Your task to perform on an android device: change timer sound Image 0: 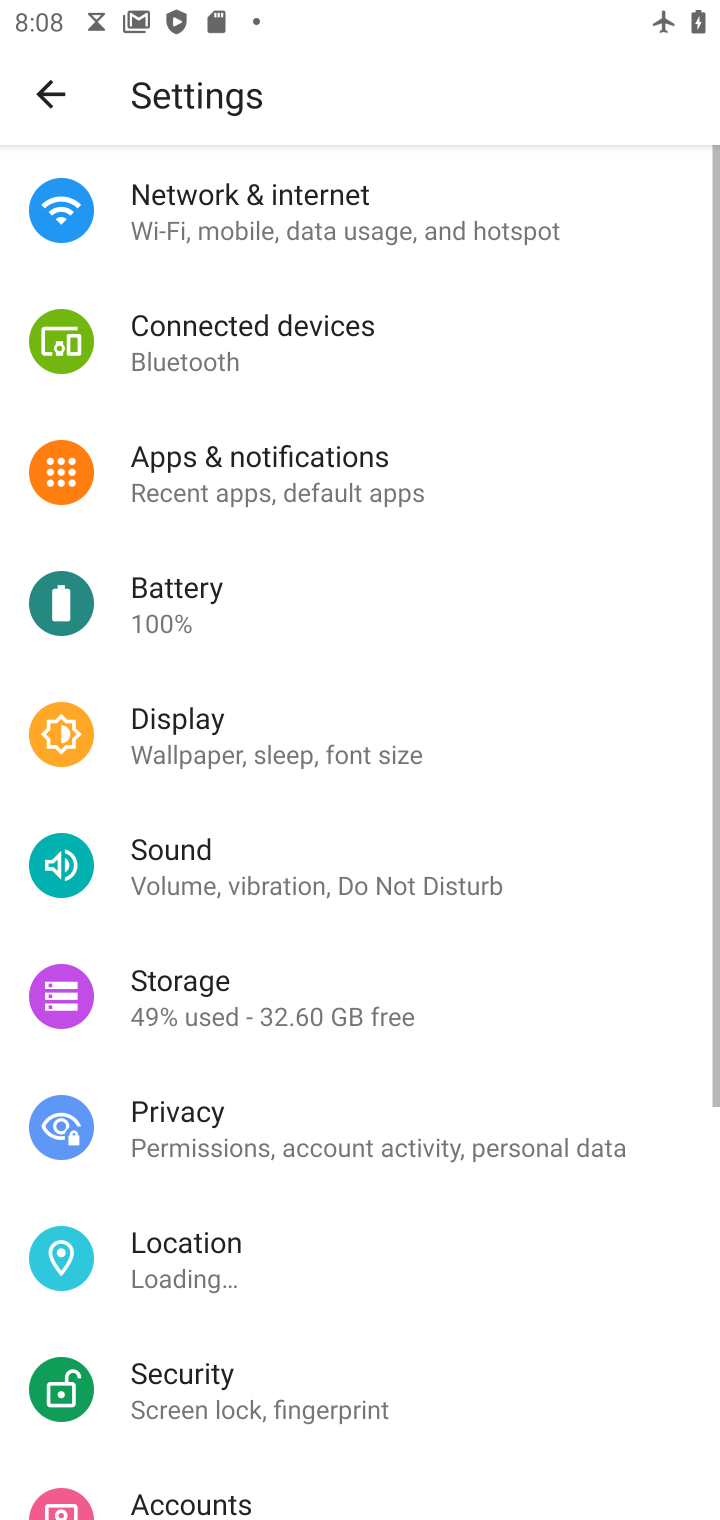
Step 0: drag from (346, 1300) to (378, 460)
Your task to perform on an android device: change timer sound Image 1: 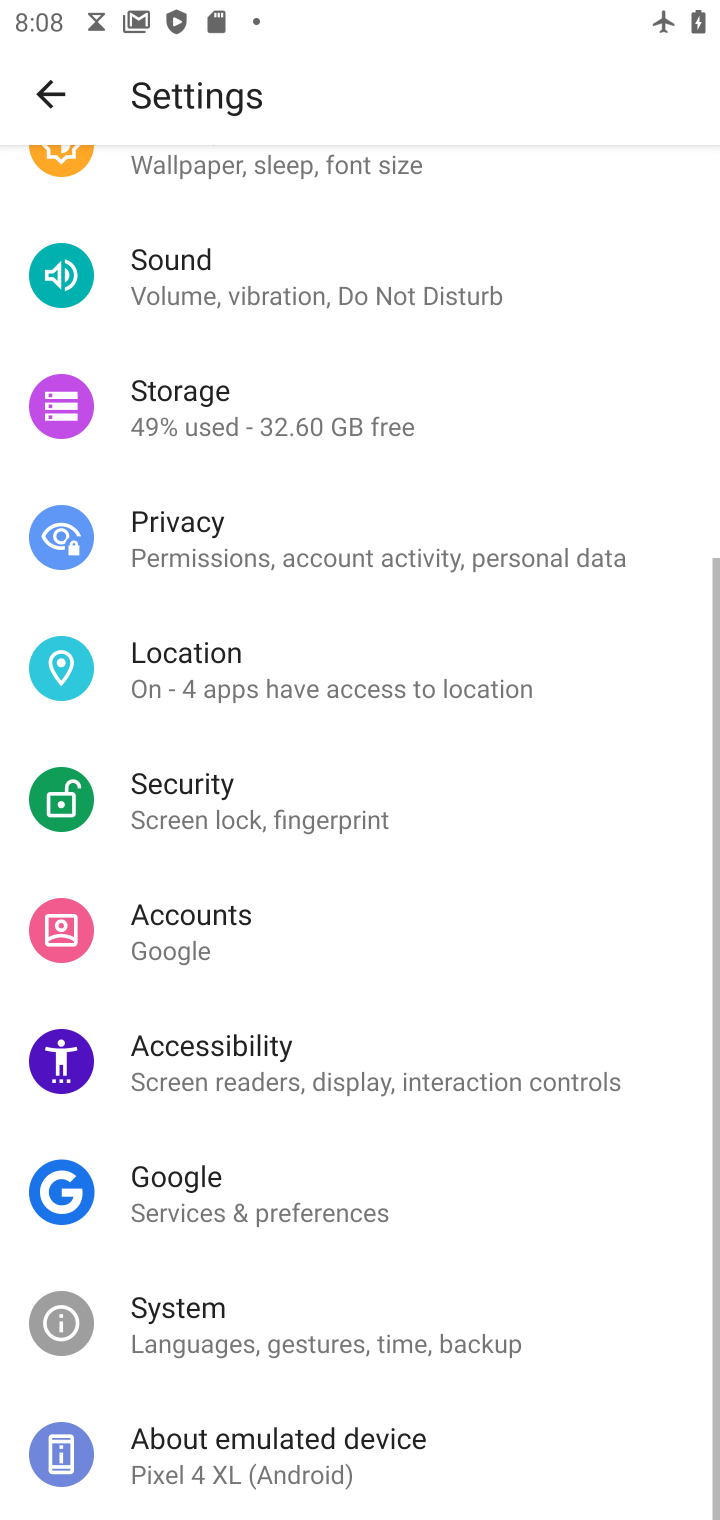
Step 1: press home button
Your task to perform on an android device: change timer sound Image 2: 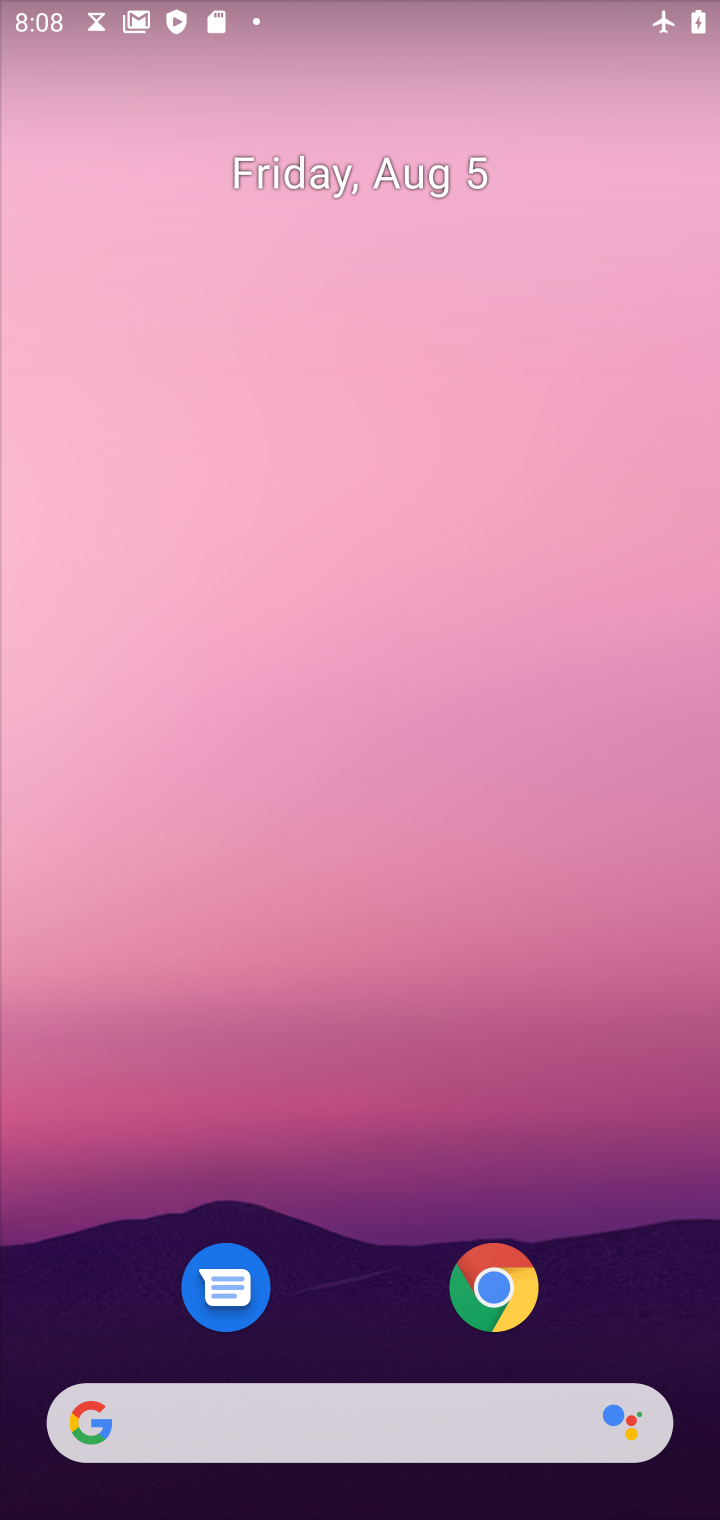
Step 2: drag from (338, 1205) to (347, 279)
Your task to perform on an android device: change timer sound Image 3: 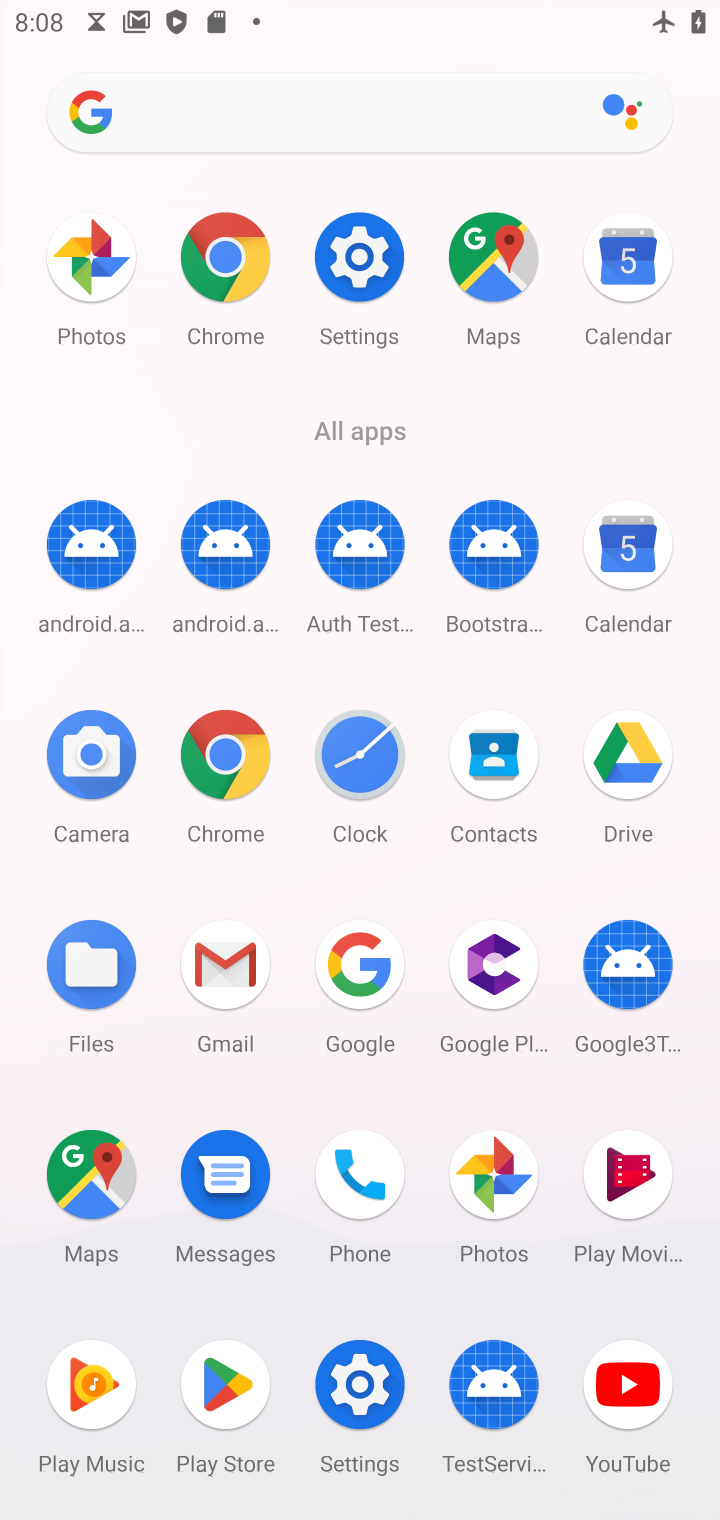
Step 3: click (363, 746)
Your task to perform on an android device: change timer sound Image 4: 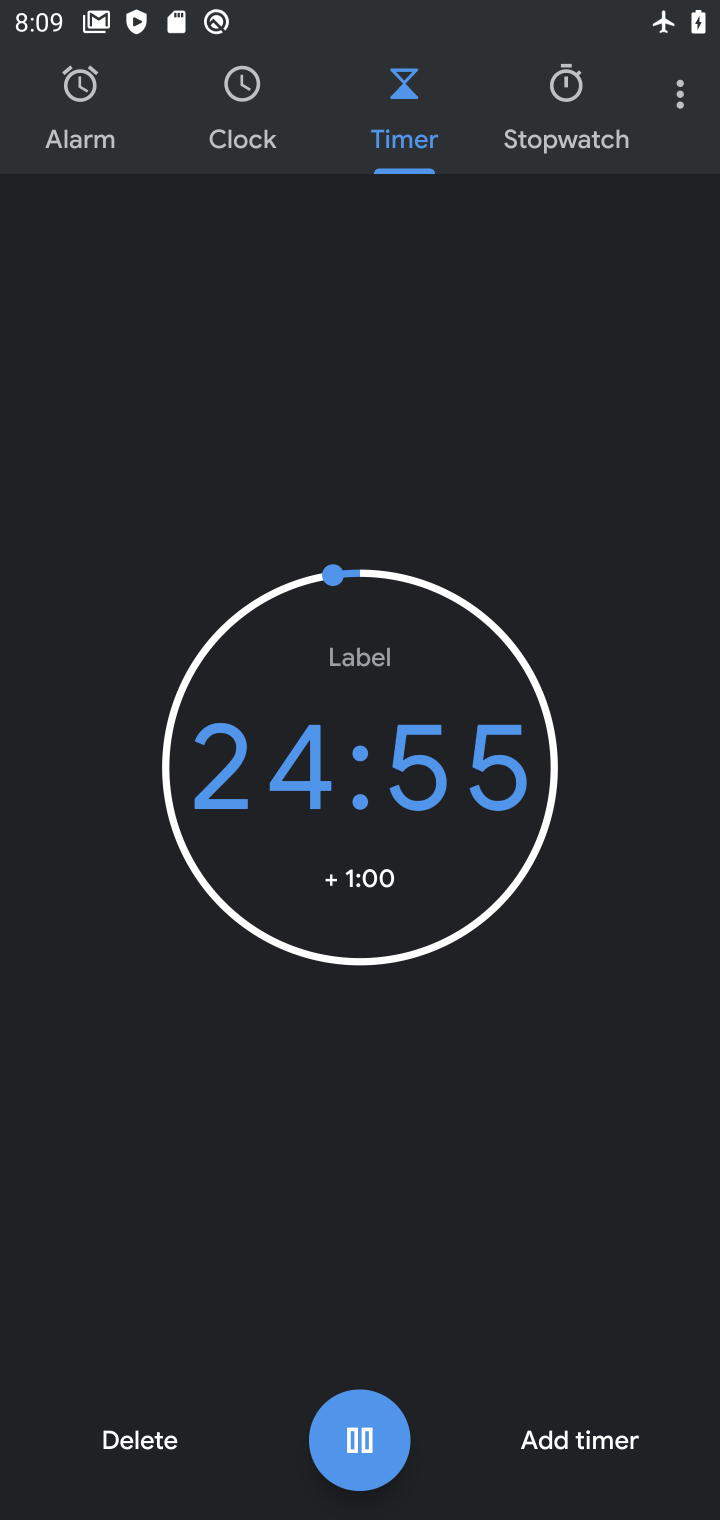
Step 4: click (684, 103)
Your task to perform on an android device: change timer sound Image 5: 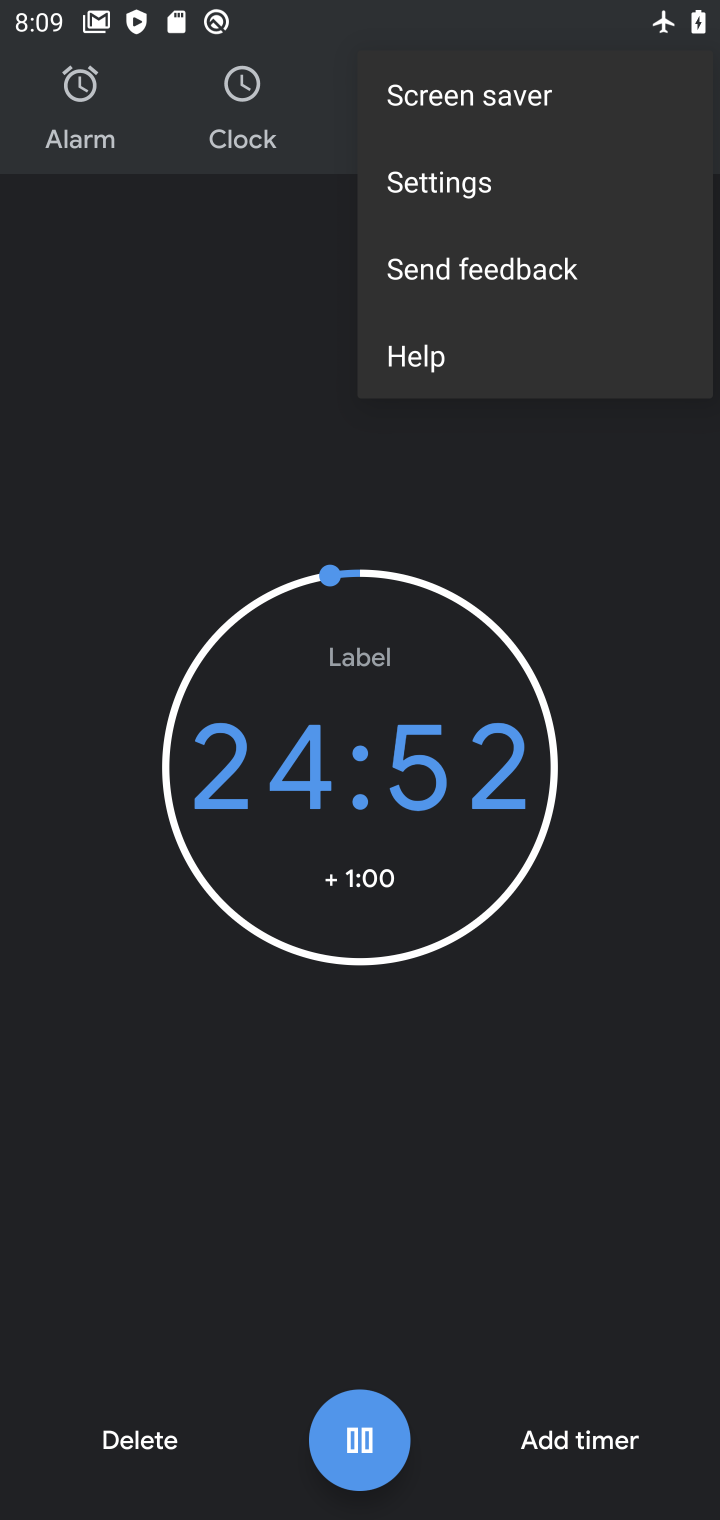
Step 5: click (430, 178)
Your task to perform on an android device: change timer sound Image 6: 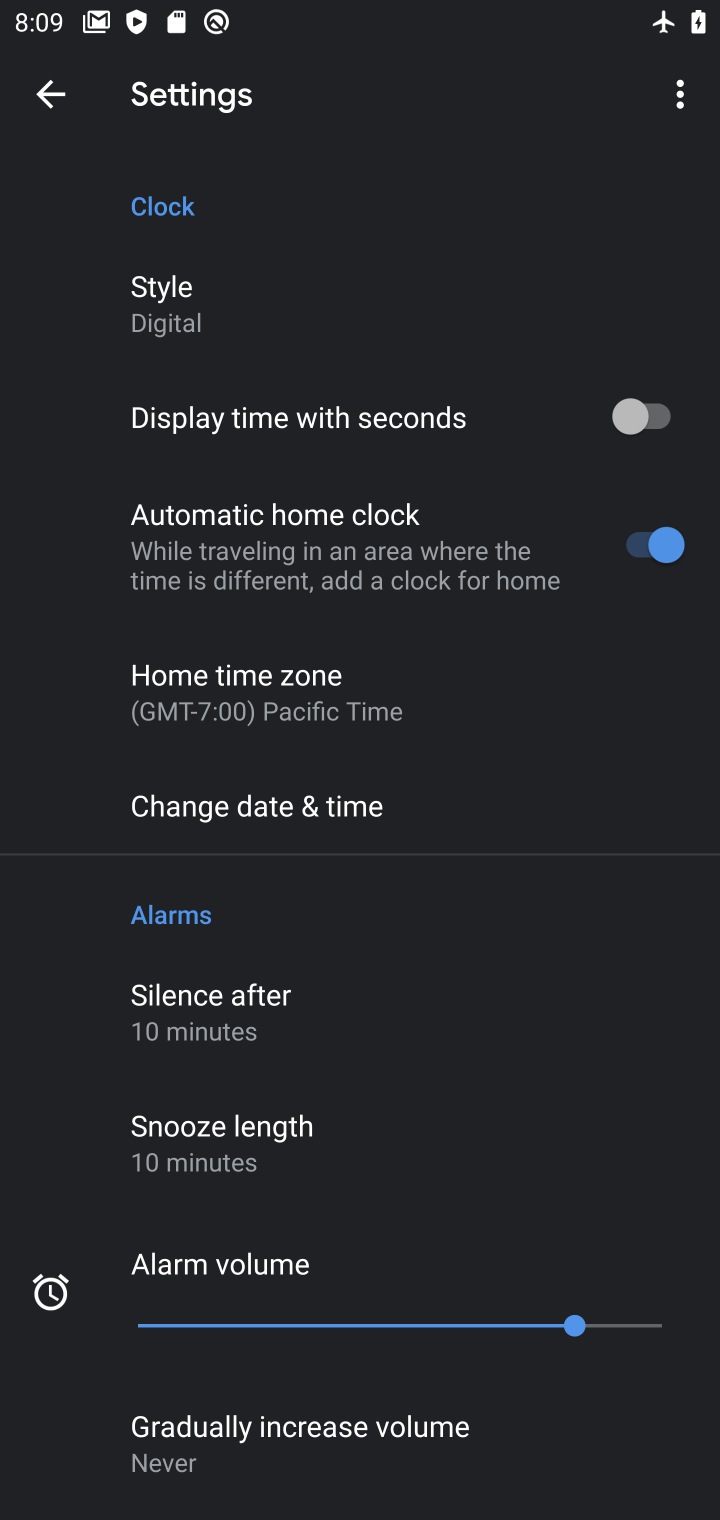
Step 6: drag from (401, 1267) to (368, 561)
Your task to perform on an android device: change timer sound Image 7: 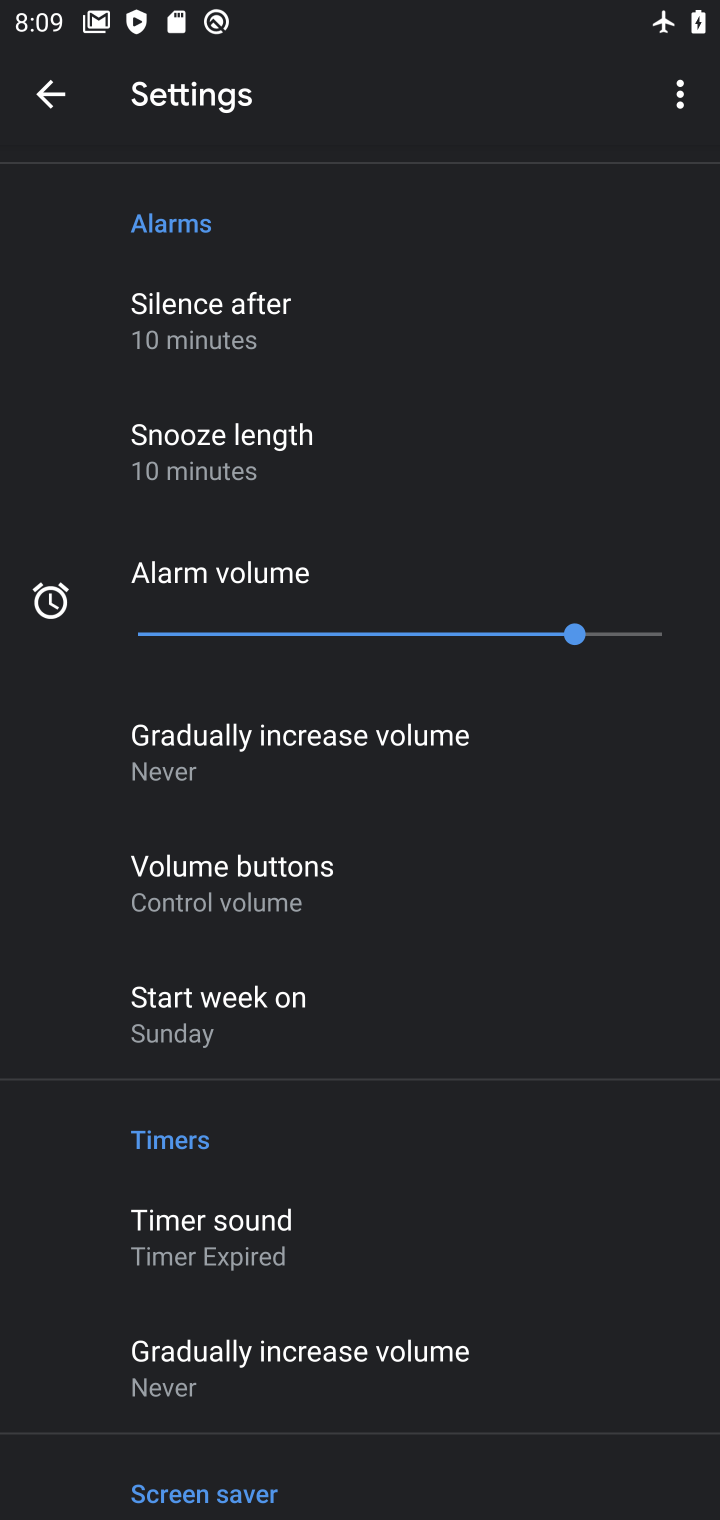
Step 7: click (245, 1255)
Your task to perform on an android device: change timer sound Image 8: 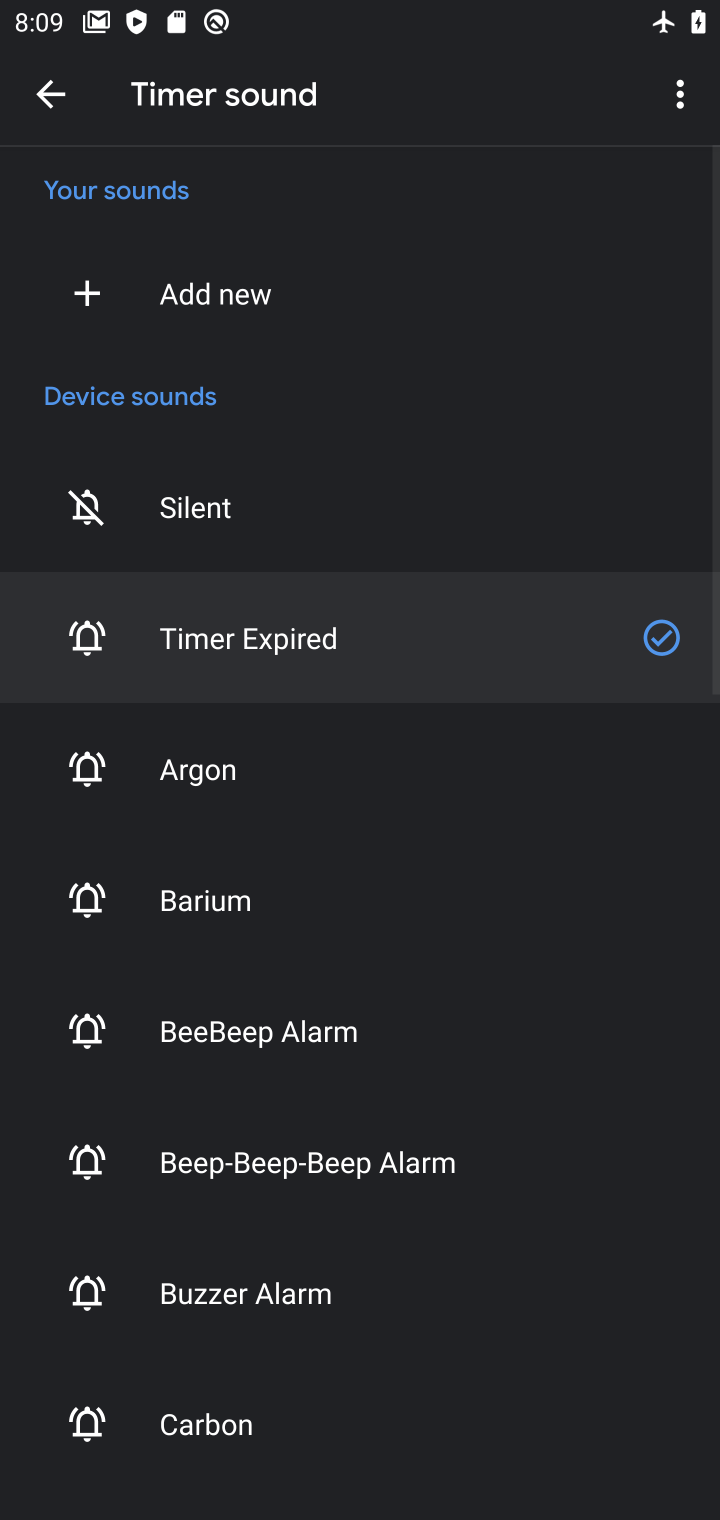
Step 8: click (249, 1160)
Your task to perform on an android device: change timer sound Image 9: 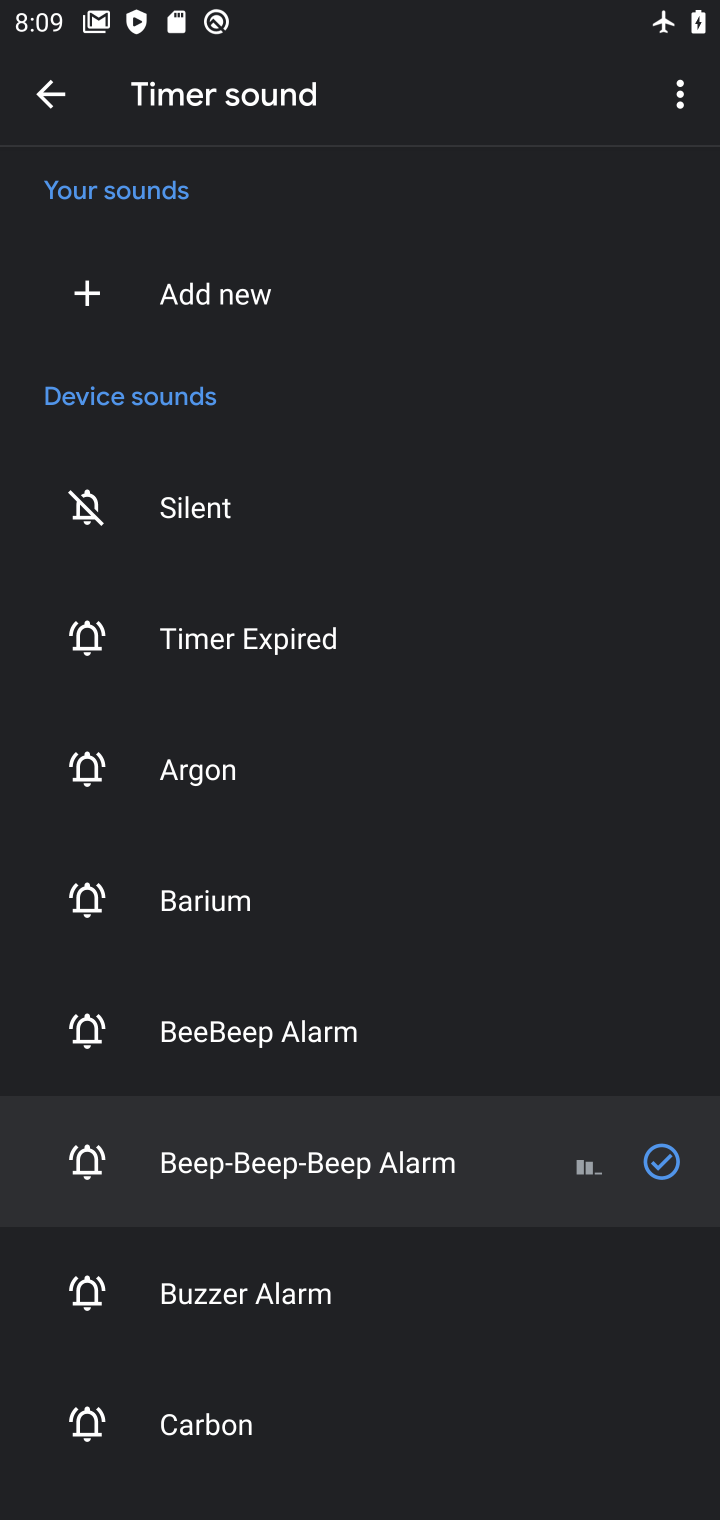
Step 9: task complete